Your task to perform on an android device: toggle translation in the chrome app Image 0: 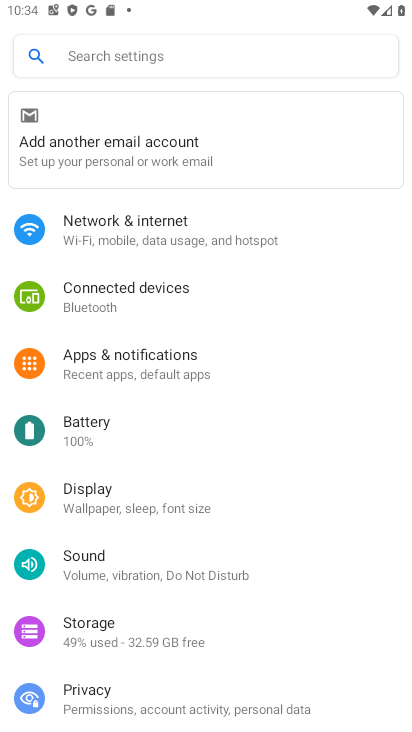
Step 0: press home button
Your task to perform on an android device: toggle translation in the chrome app Image 1: 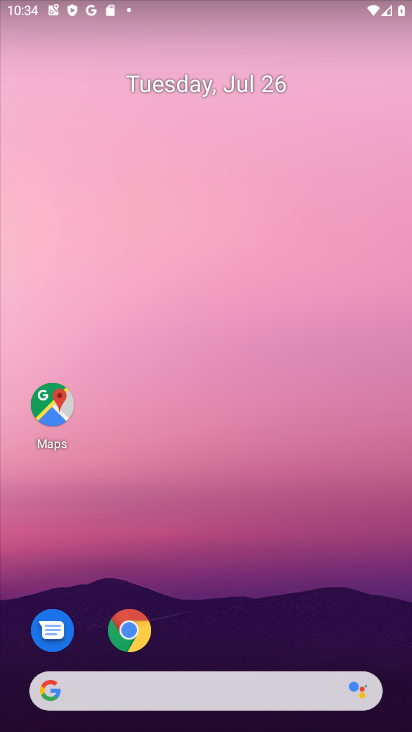
Step 1: click (136, 648)
Your task to perform on an android device: toggle translation in the chrome app Image 2: 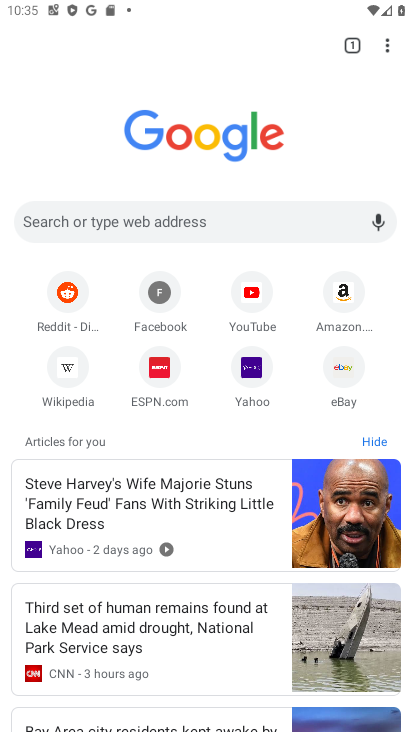
Step 2: click (389, 39)
Your task to perform on an android device: toggle translation in the chrome app Image 3: 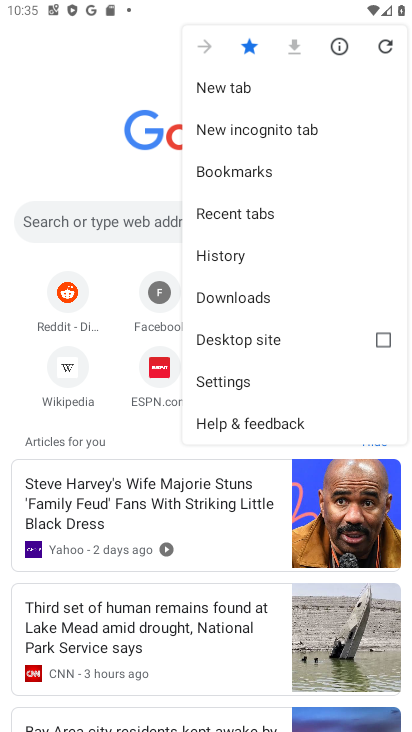
Step 3: click (247, 380)
Your task to perform on an android device: toggle translation in the chrome app Image 4: 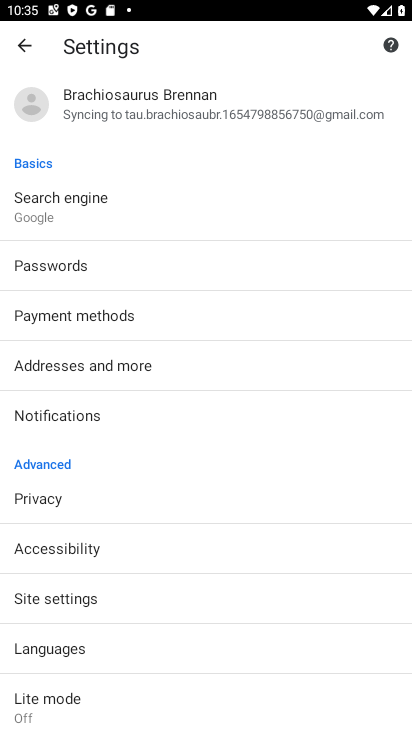
Step 4: click (131, 594)
Your task to perform on an android device: toggle translation in the chrome app Image 5: 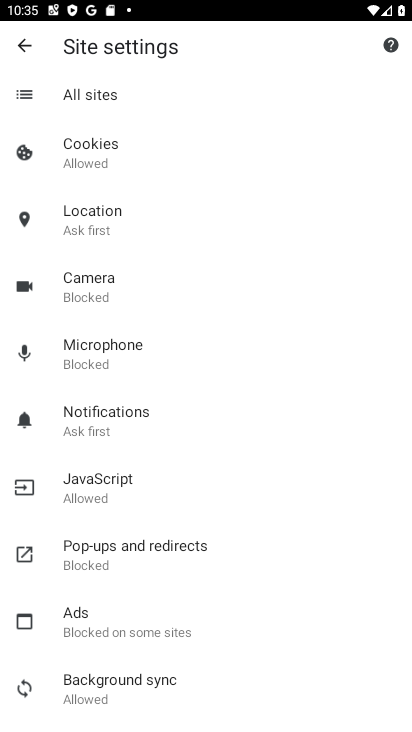
Step 5: click (20, 35)
Your task to perform on an android device: toggle translation in the chrome app Image 6: 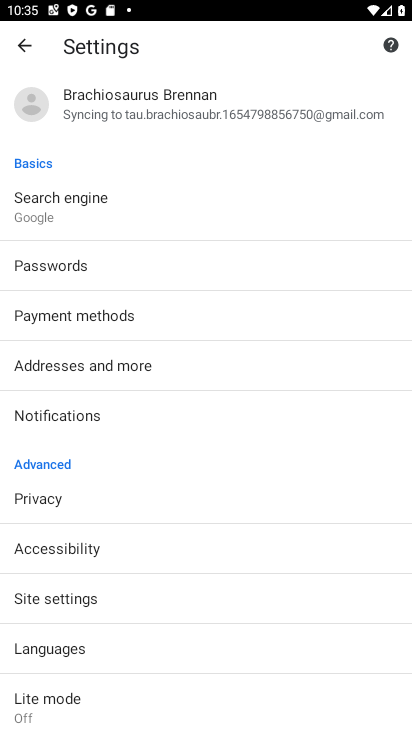
Step 6: click (96, 650)
Your task to perform on an android device: toggle translation in the chrome app Image 7: 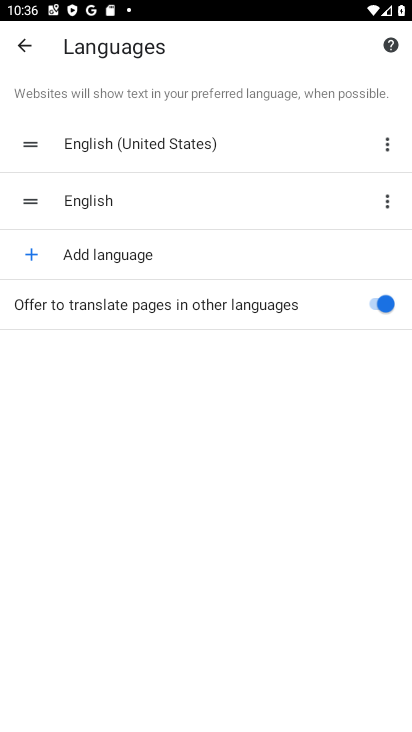
Step 7: click (387, 298)
Your task to perform on an android device: toggle translation in the chrome app Image 8: 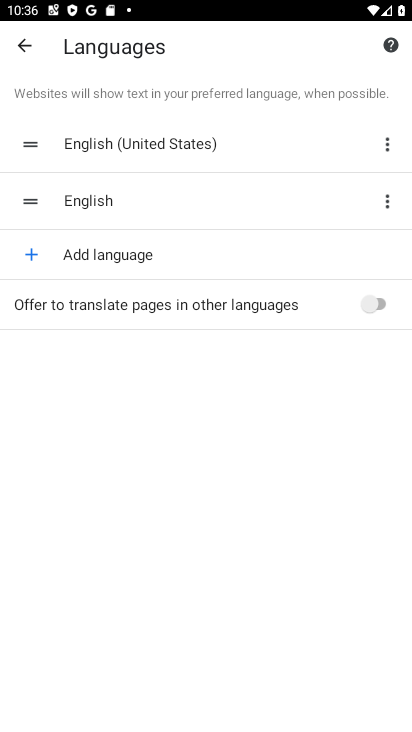
Step 8: task complete